Your task to perform on an android device: Open the Play Movies app and select the watchlist tab. Image 0: 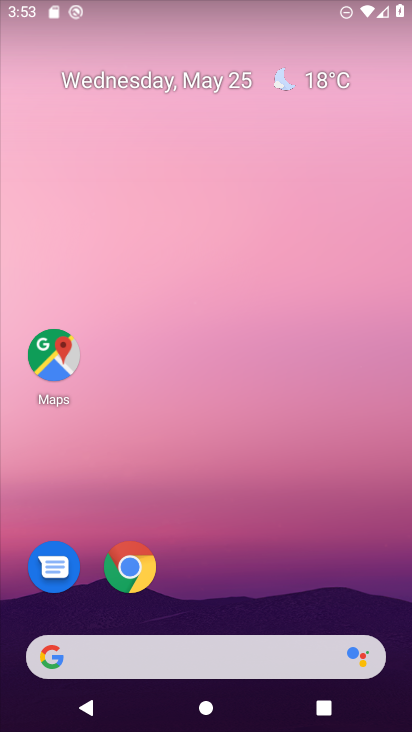
Step 0: drag from (377, 581) to (381, 290)
Your task to perform on an android device: Open the Play Movies app and select the watchlist tab. Image 1: 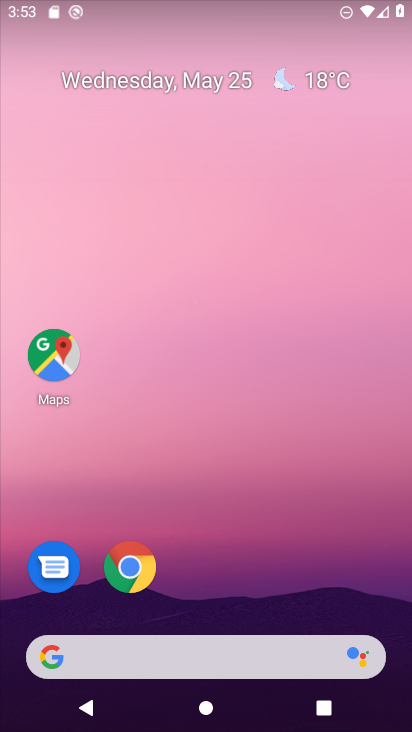
Step 1: drag from (357, 600) to (379, 214)
Your task to perform on an android device: Open the Play Movies app and select the watchlist tab. Image 2: 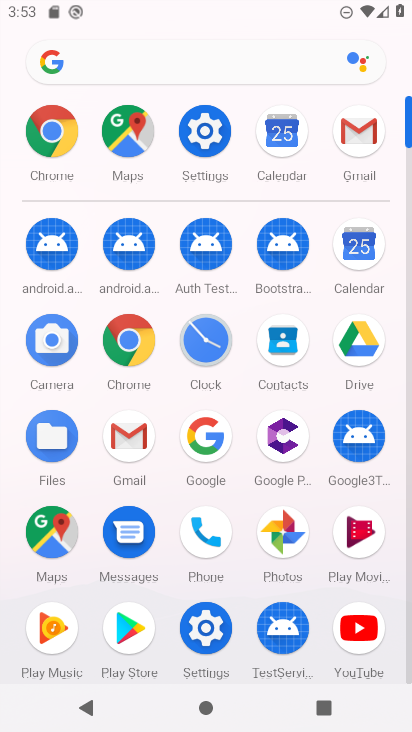
Step 2: click (364, 543)
Your task to perform on an android device: Open the Play Movies app and select the watchlist tab. Image 3: 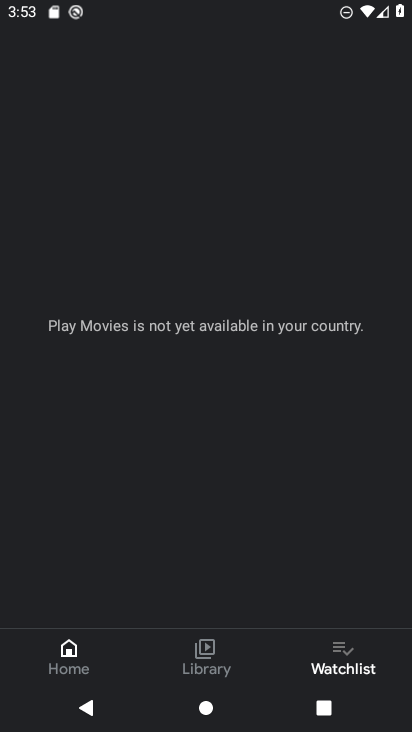
Step 3: task complete